Your task to perform on an android device: set an alarm Image 0: 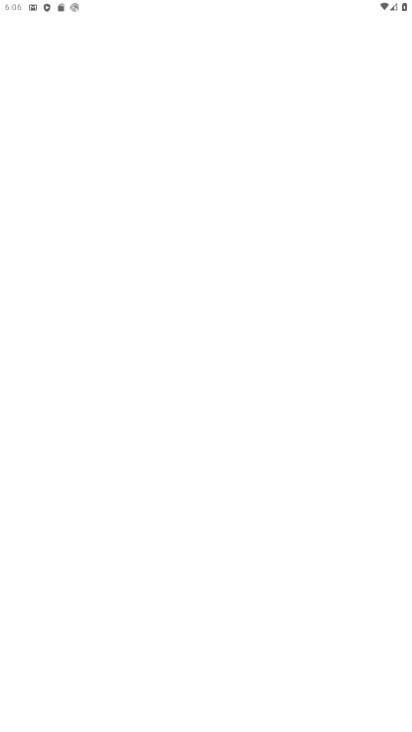
Step 0: press home button
Your task to perform on an android device: set an alarm Image 1: 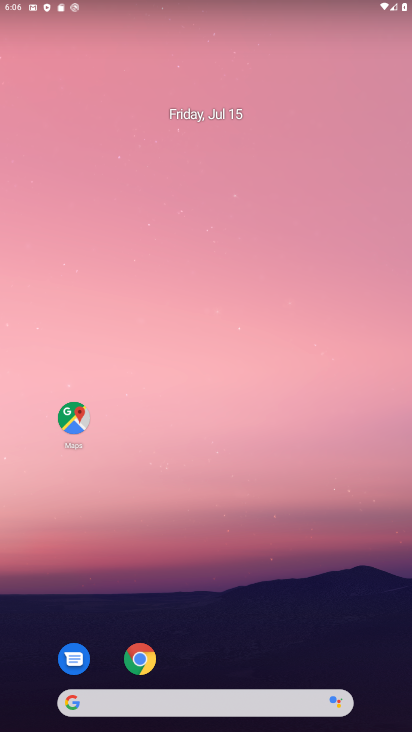
Step 1: drag from (381, 666) to (352, 132)
Your task to perform on an android device: set an alarm Image 2: 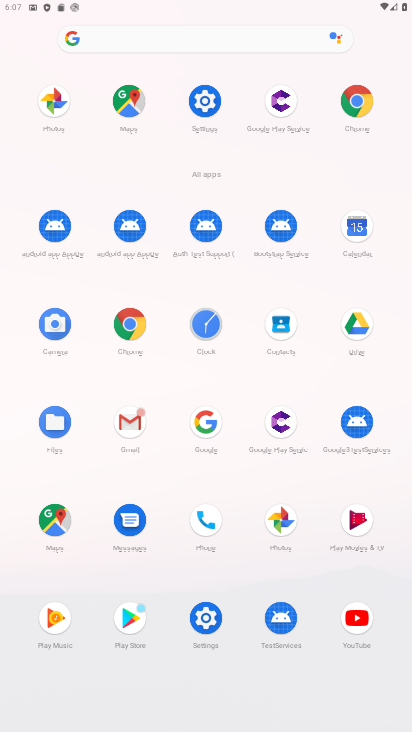
Step 2: click (204, 323)
Your task to perform on an android device: set an alarm Image 3: 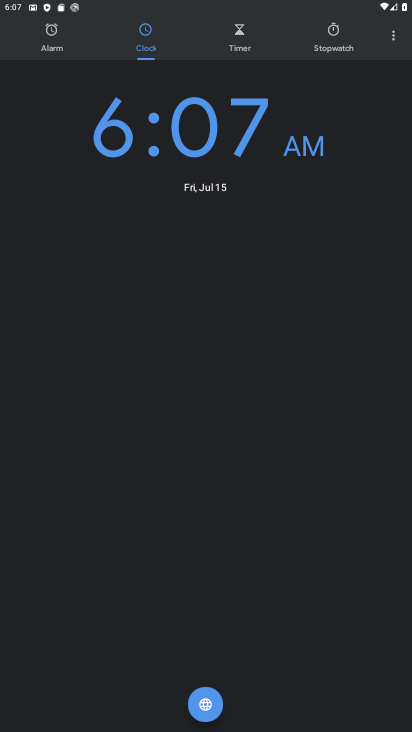
Step 3: click (50, 35)
Your task to perform on an android device: set an alarm Image 4: 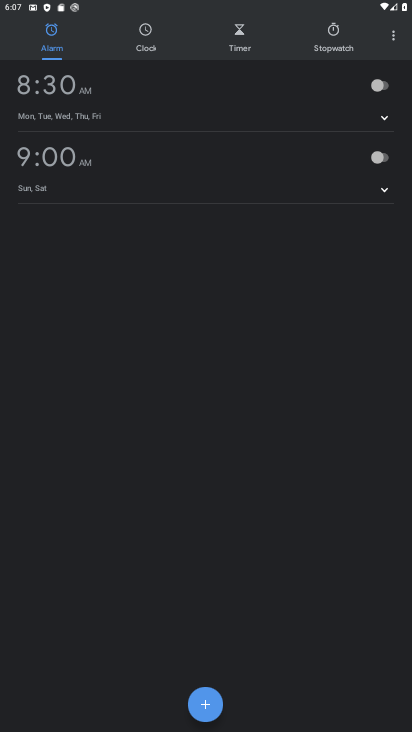
Step 4: click (38, 104)
Your task to perform on an android device: set an alarm Image 5: 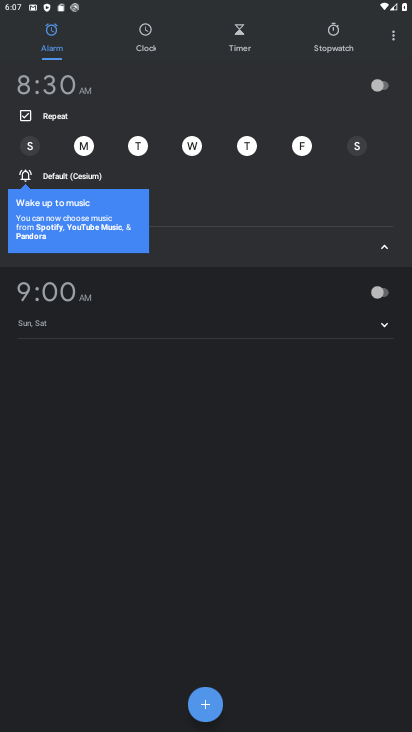
Step 5: click (354, 148)
Your task to perform on an android device: set an alarm Image 6: 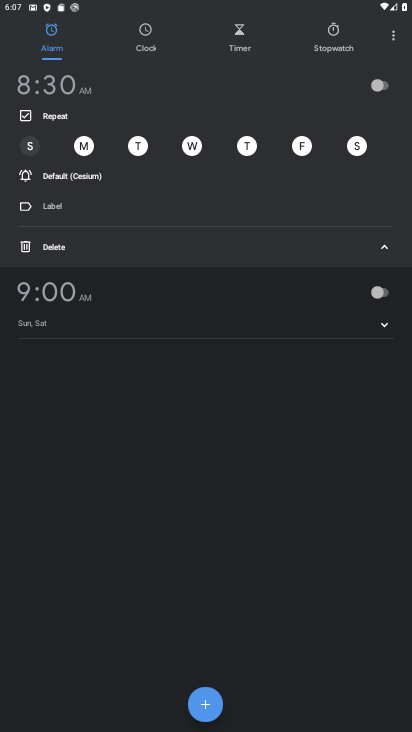
Step 6: click (45, 77)
Your task to perform on an android device: set an alarm Image 7: 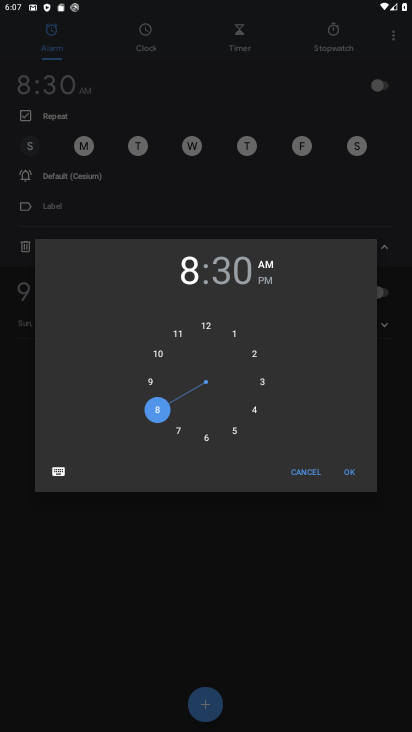
Step 7: click (210, 439)
Your task to perform on an android device: set an alarm Image 8: 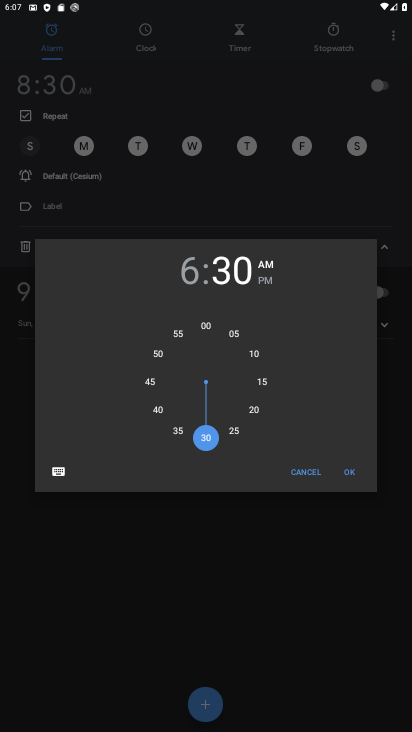
Step 8: click (259, 382)
Your task to perform on an android device: set an alarm Image 9: 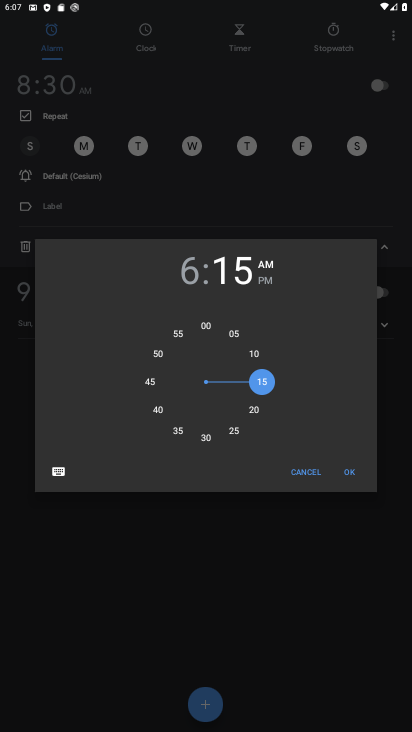
Step 9: click (352, 471)
Your task to perform on an android device: set an alarm Image 10: 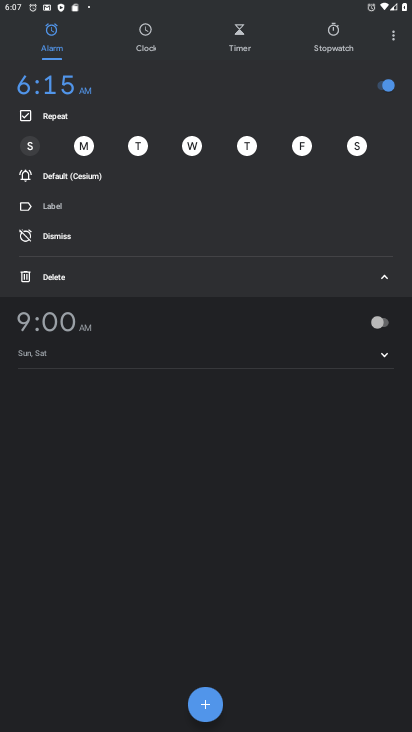
Step 10: click (383, 278)
Your task to perform on an android device: set an alarm Image 11: 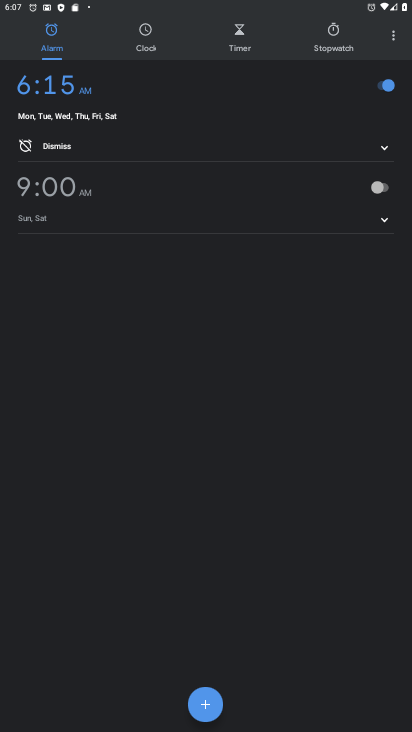
Step 11: task complete